Your task to perform on an android device: move an email to a new category in the gmail app Image 0: 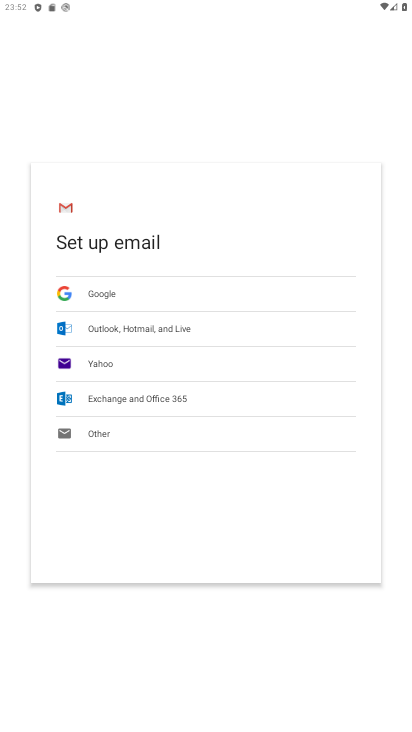
Step 0: press home button
Your task to perform on an android device: move an email to a new category in the gmail app Image 1: 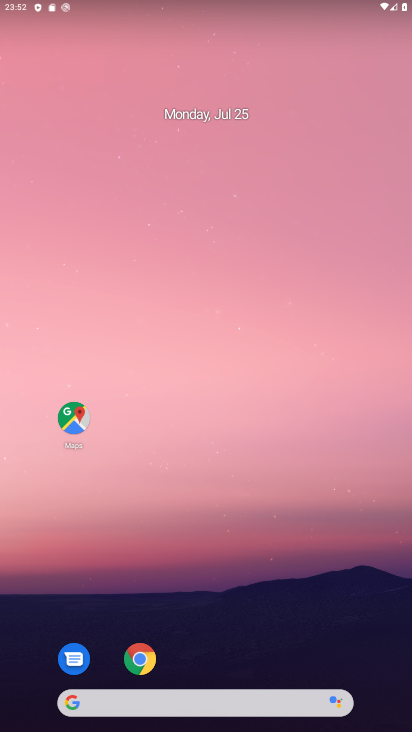
Step 1: drag from (293, 636) to (236, 4)
Your task to perform on an android device: move an email to a new category in the gmail app Image 2: 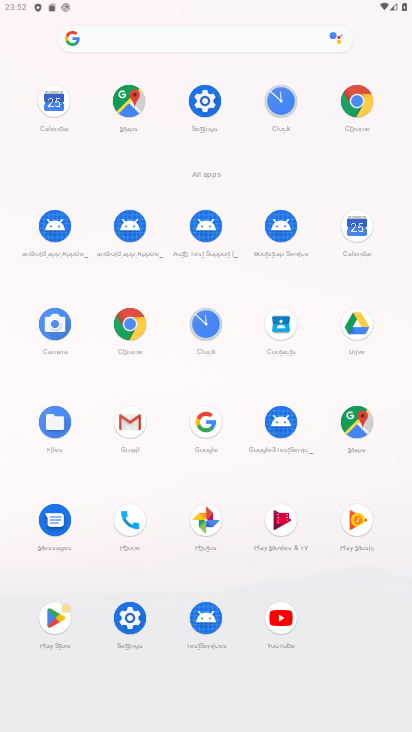
Step 2: click (133, 423)
Your task to perform on an android device: move an email to a new category in the gmail app Image 3: 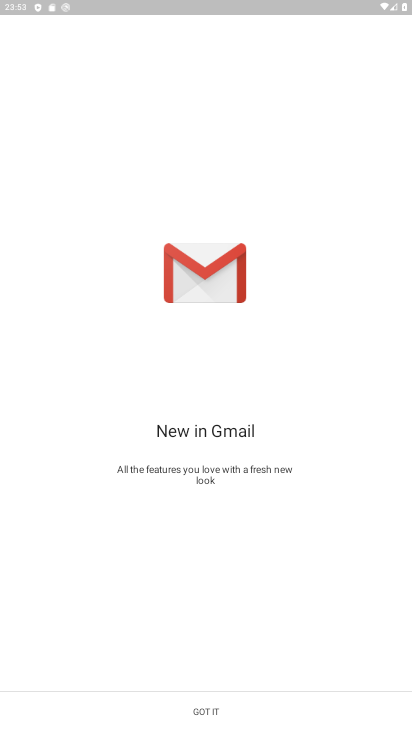
Step 3: click (166, 709)
Your task to perform on an android device: move an email to a new category in the gmail app Image 4: 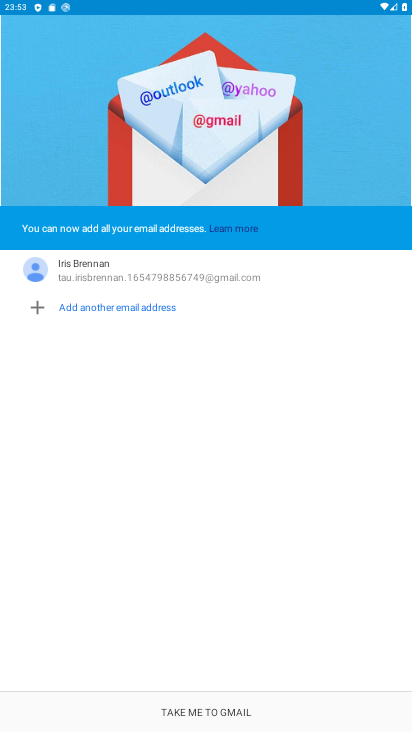
Step 4: click (325, 721)
Your task to perform on an android device: move an email to a new category in the gmail app Image 5: 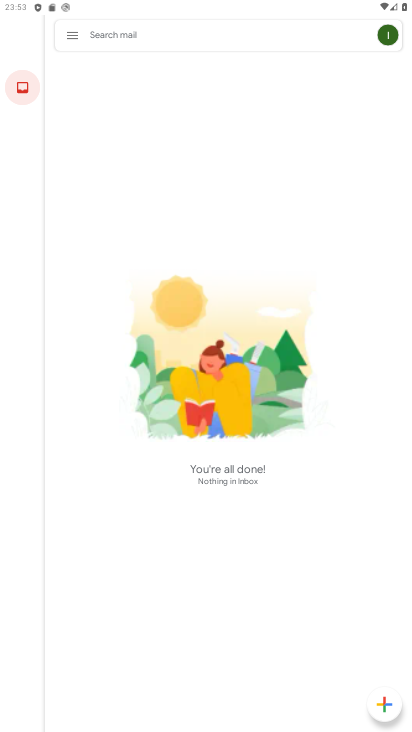
Step 5: click (68, 37)
Your task to perform on an android device: move an email to a new category in the gmail app Image 6: 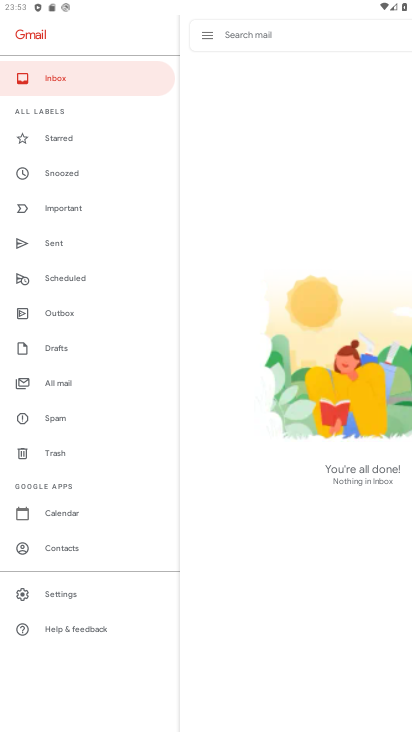
Step 6: click (62, 373)
Your task to perform on an android device: move an email to a new category in the gmail app Image 7: 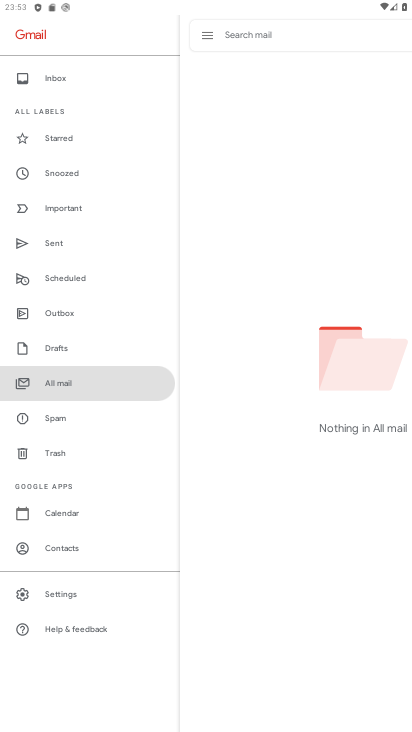
Step 7: task complete